Your task to perform on an android device: add a contact in the contacts app Image 0: 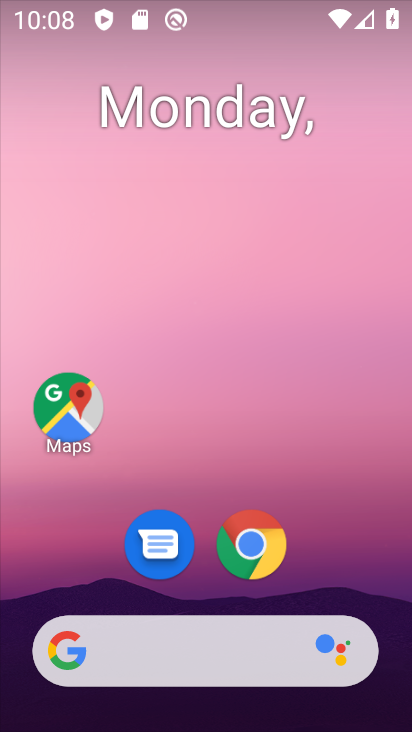
Step 0: drag from (80, 607) to (174, 159)
Your task to perform on an android device: add a contact in the contacts app Image 1: 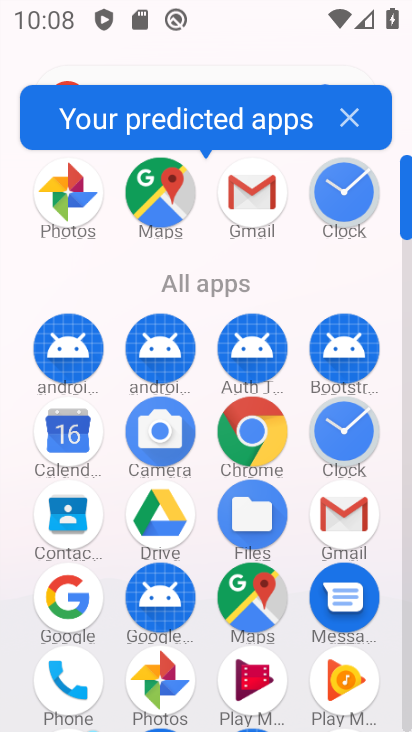
Step 1: click (77, 514)
Your task to perform on an android device: add a contact in the contacts app Image 2: 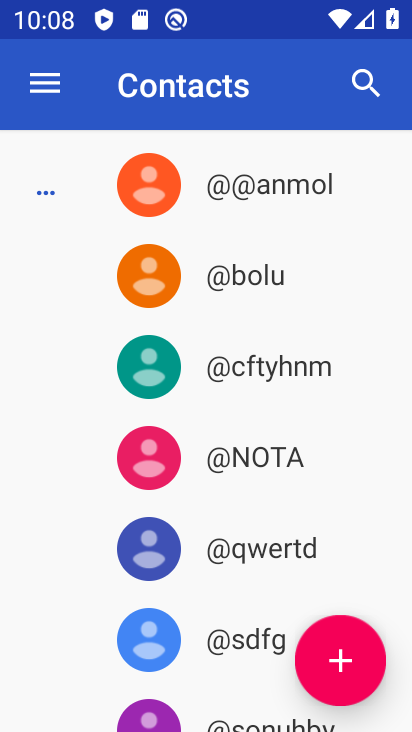
Step 2: click (353, 664)
Your task to perform on an android device: add a contact in the contacts app Image 3: 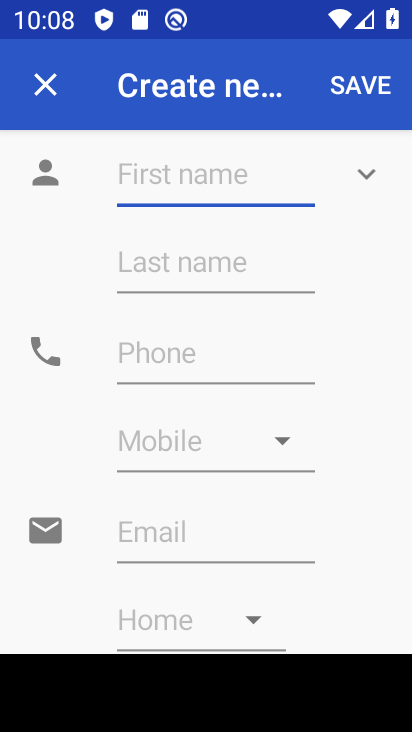
Step 3: type "ADAM"
Your task to perform on an android device: add a contact in the contacts app Image 4: 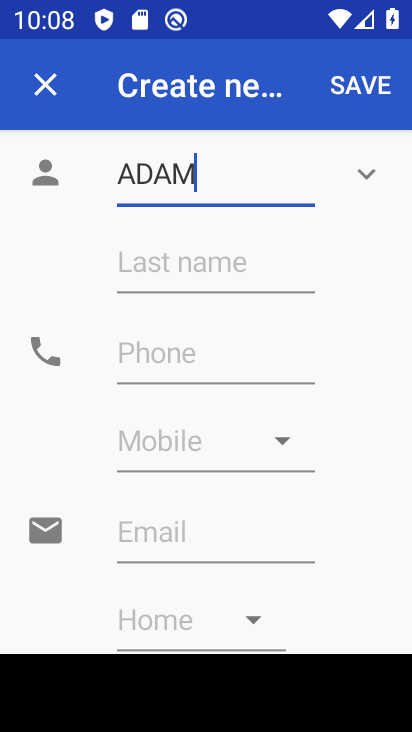
Step 4: click (141, 341)
Your task to perform on an android device: add a contact in the contacts app Image 5: 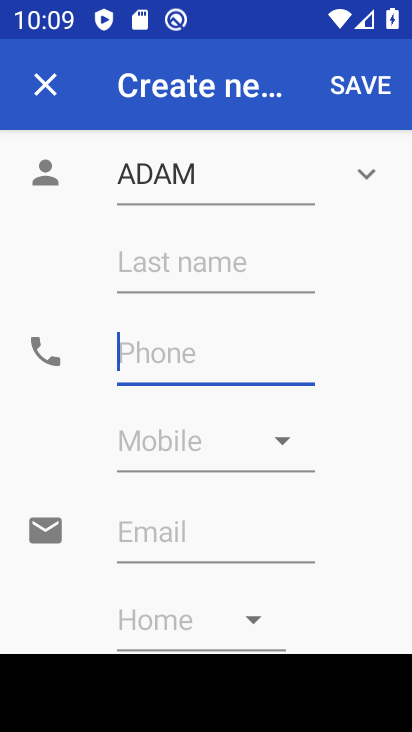
Step 5: type "22112211"
Your task to perform on an android device: add a contact in the contacts app Image 6: 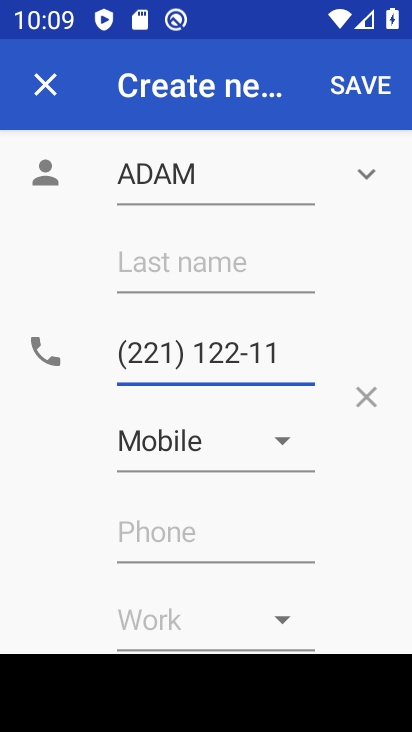
Step 6: type "22"
Your task to perform on an android device: add a contact in the contacts app Image 7: 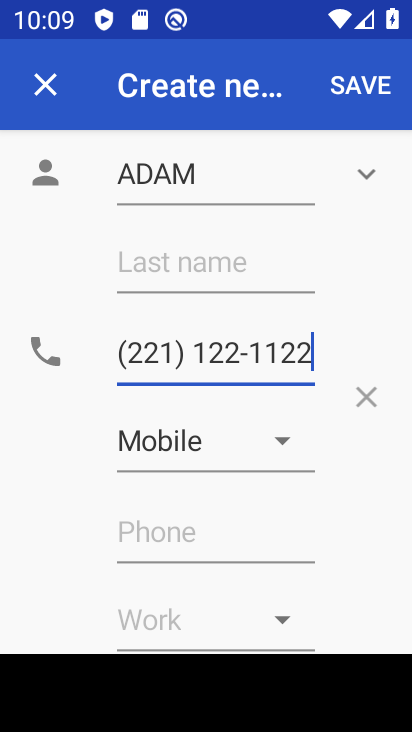
Step 7: click (353, 80)
Your task to perform on an android device: add a contact in the contacts app Image 8: 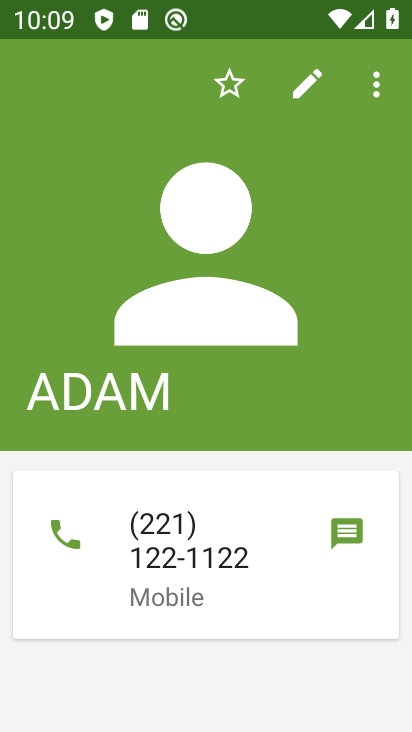
Step 8: task complete